Your task to perform on an android device: turn off translation in the chrome app Image 0: 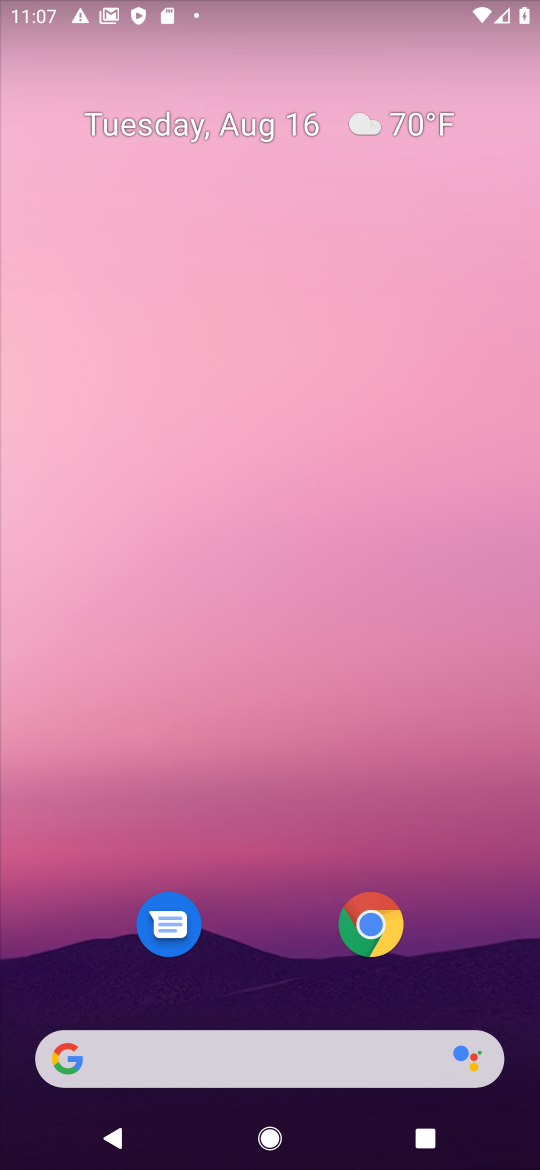
Step 0: click (369, 928)
Your task to perform on an android device: turn off translation in the chrome app Image 1: 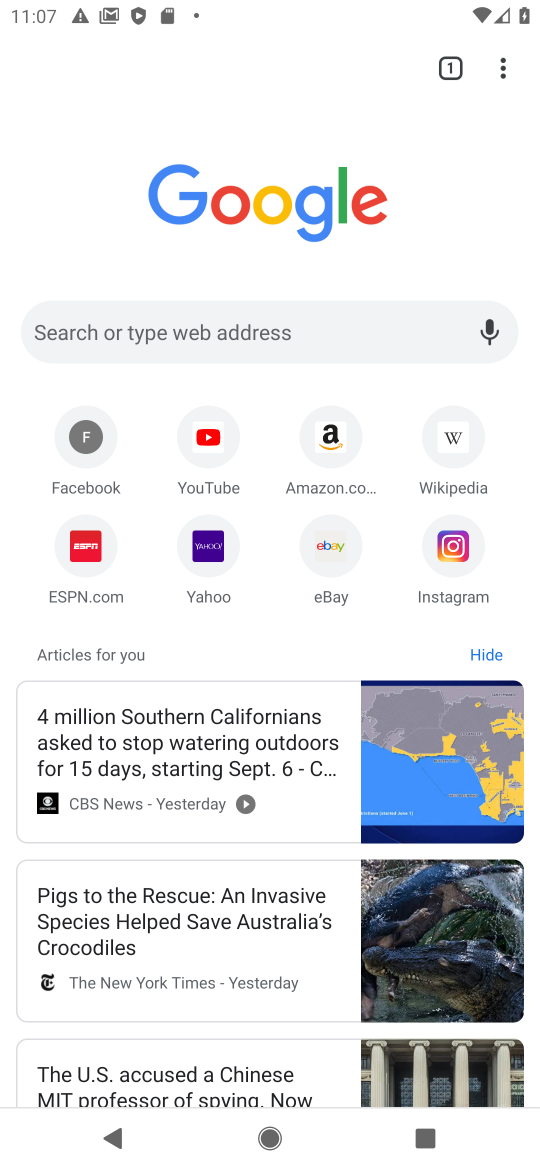
Step 1: click (511, 64)
Your task to perform on an android device: turn off translation in the chrome app Image 2: 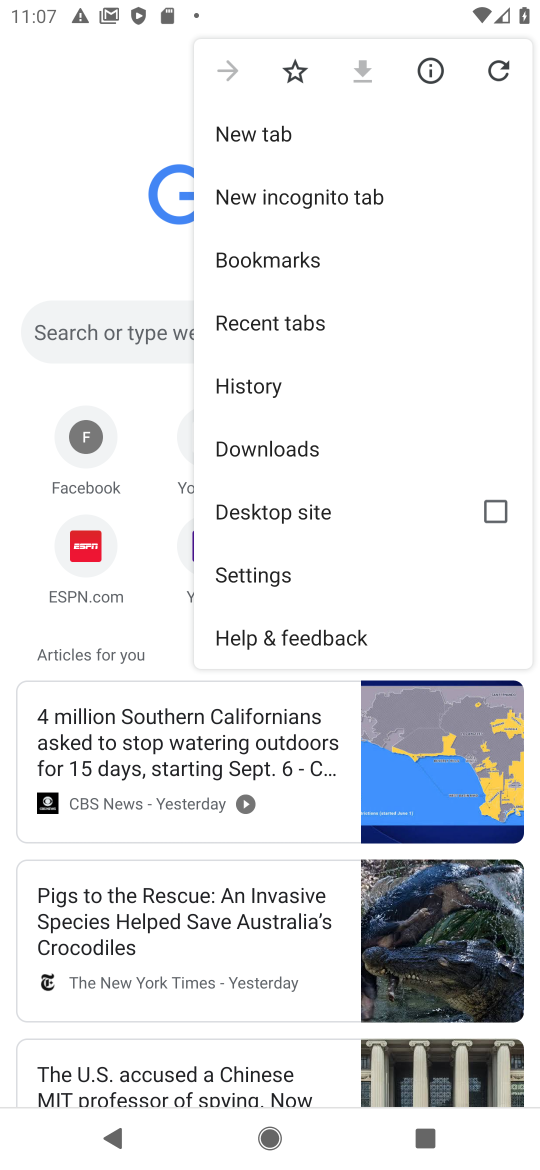
Step 2: click (317, 576)
Your task to perform on an android device: turn off translation in the chrome app Image 3: 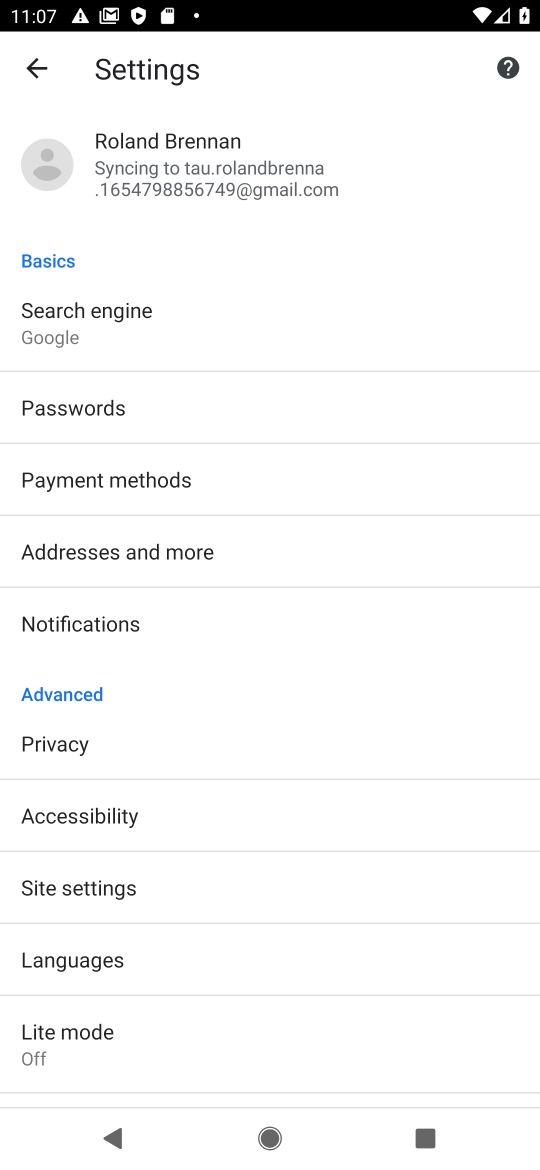
Step 3: click (143, 968)
Your task to perform on an android device: turn off translation in the chrome app Image 4: 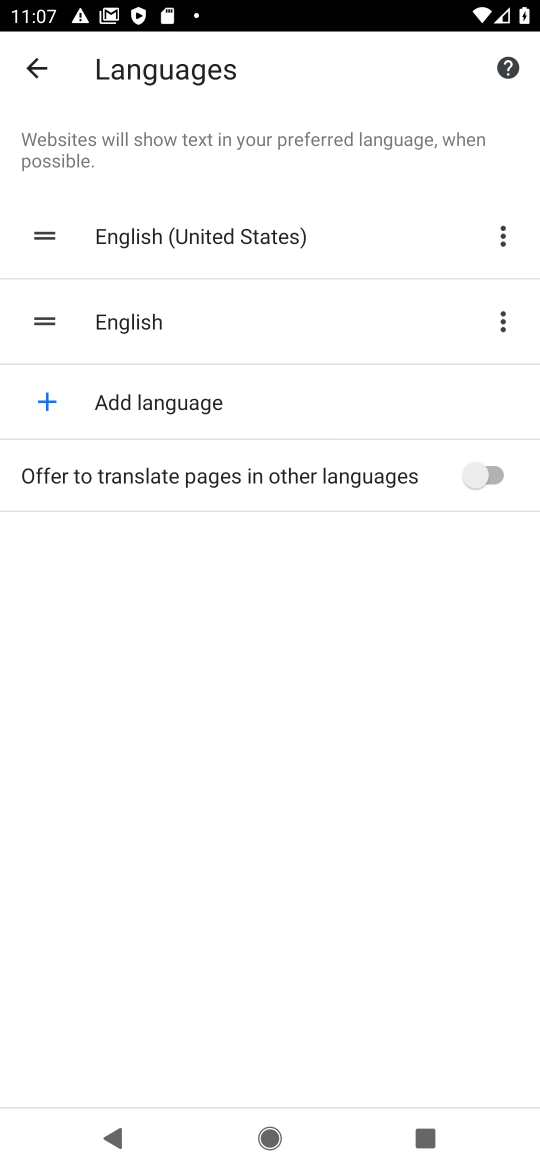
Step 4: task complete